Your task to perform on an android device: turn off improve location accuracy Image 0: 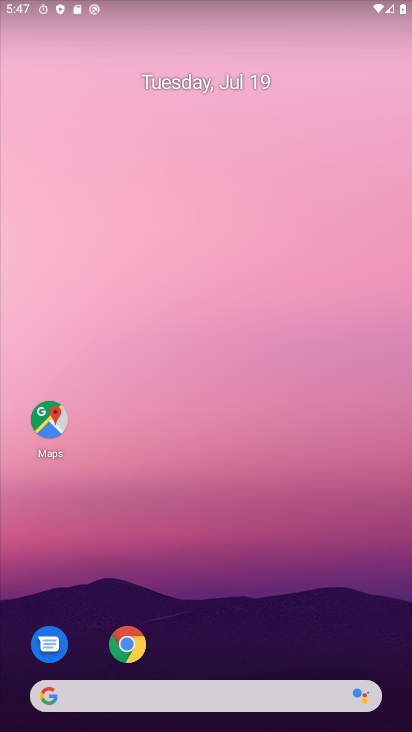
Step 0: drag from (254, 643) to (253, 241)
Your task to perform on an android device: turn off improve location accuracy Image 1: 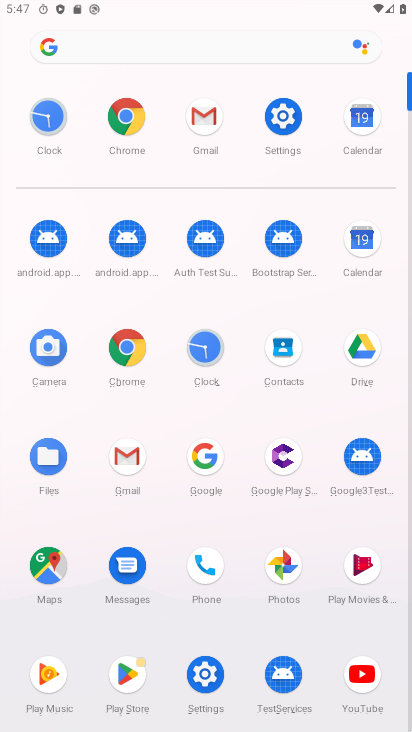
Step 1: click (207, 667)
Your task to perform on an android device: turn off improve location accuracy Image 2: 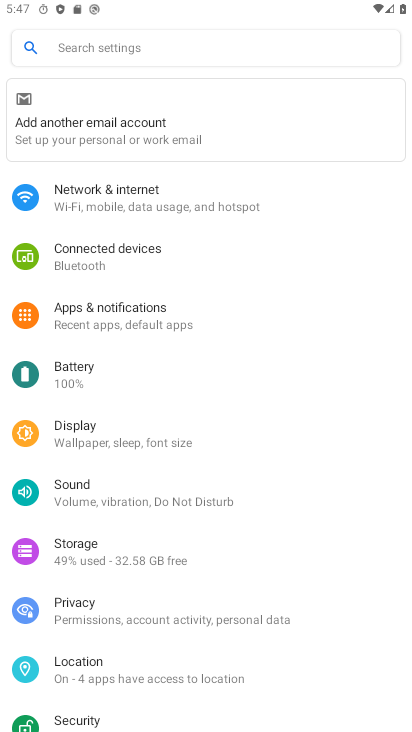
Step 2: click (92, 672)
Your task to perform on an android device: turn off improve location accuracy Image 3: 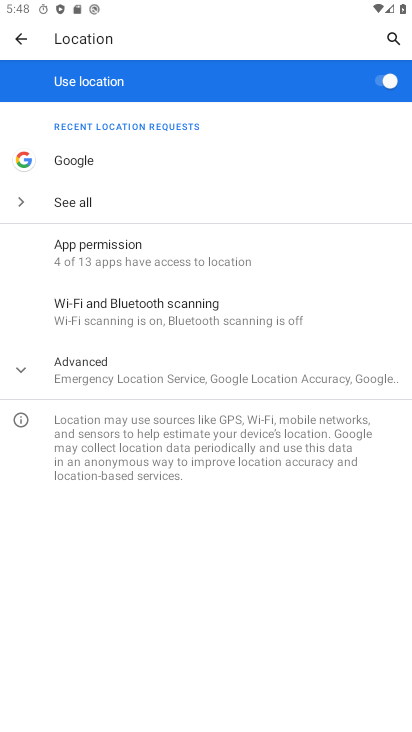
Step 3: click (101, 367)
Your task to perform on an android device: turn off improve location accuracy Image 4: 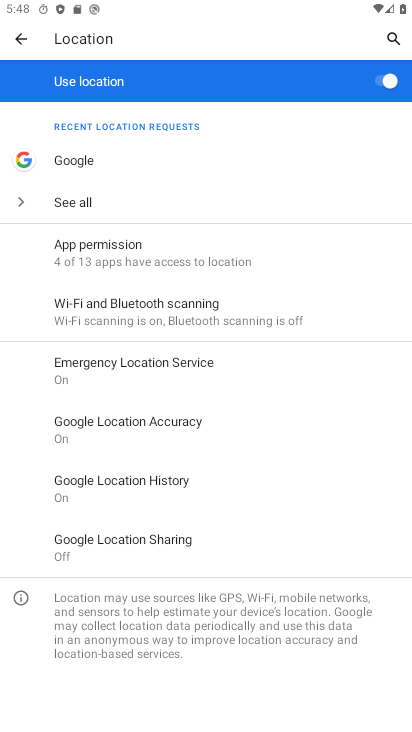
Step 4: click (137, 421)
Your task to perform on an android device: turn off improve location accuracy Image 5: 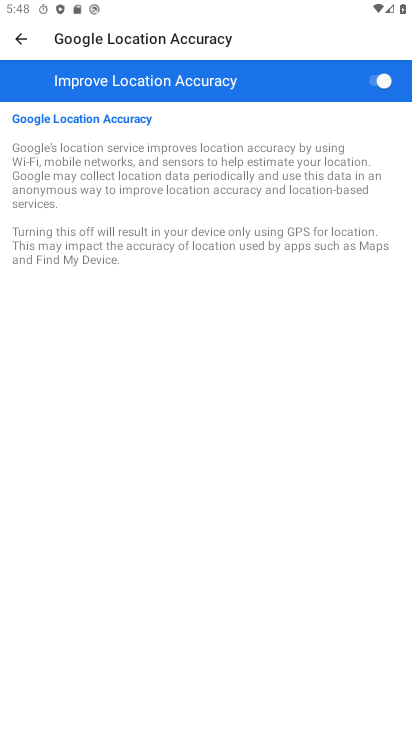
Step 5: click (374, 83)
Your task to perform on an android device: turn off improve location accuracy Image 6: 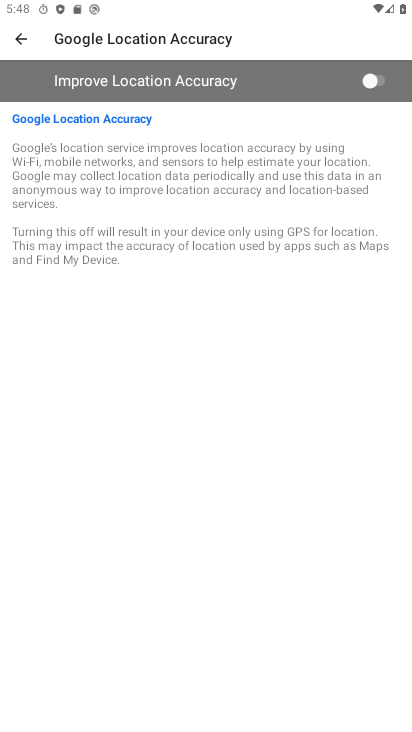
Step 6: task complete